Your task to perform on an android device: find snoozed emails in the gmail app Image 0: 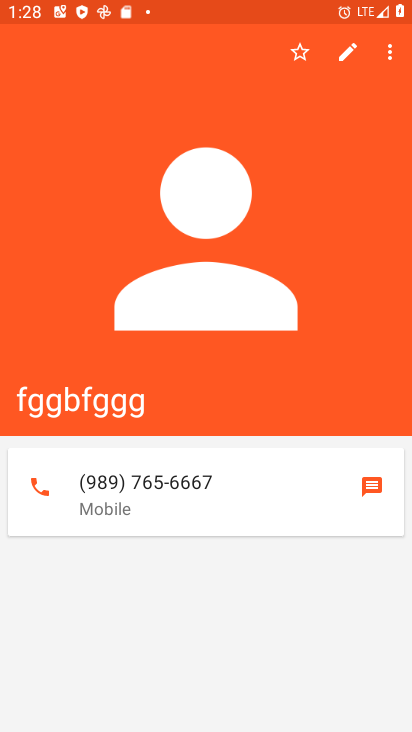
Step 0: press home button
Your task to perform on an android device: find snoozed emails in the gmail app Image 1: 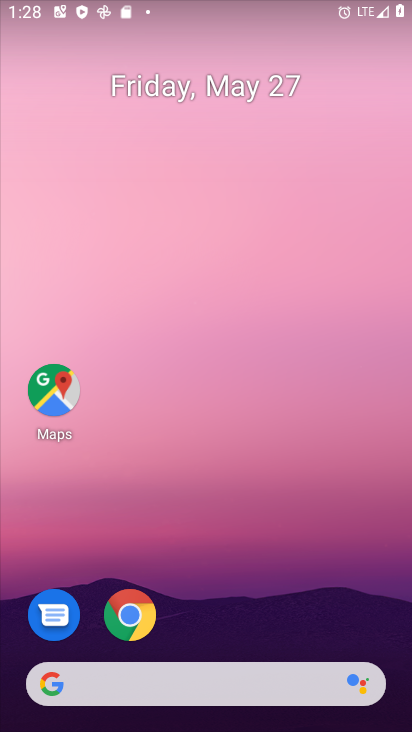
Step 1: drag from (288, 674) to (282, 165)
Your task to perform on an android device: find snoozed emails in the gmail app Image 2: 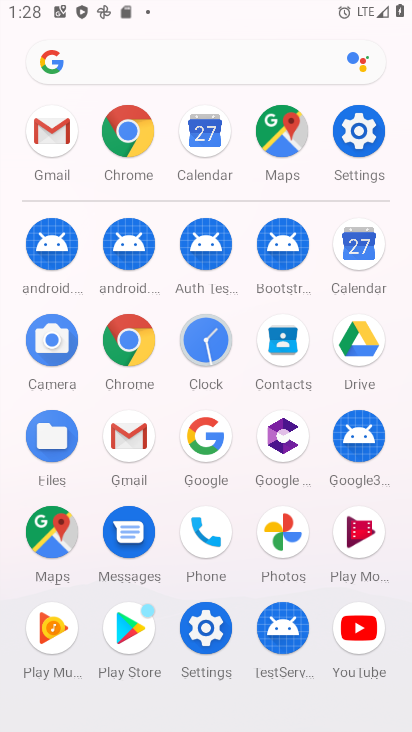
Step 2: click (130, 444)
Your task to perform on an android device: find snoozed emails in the gmail app Image 3: 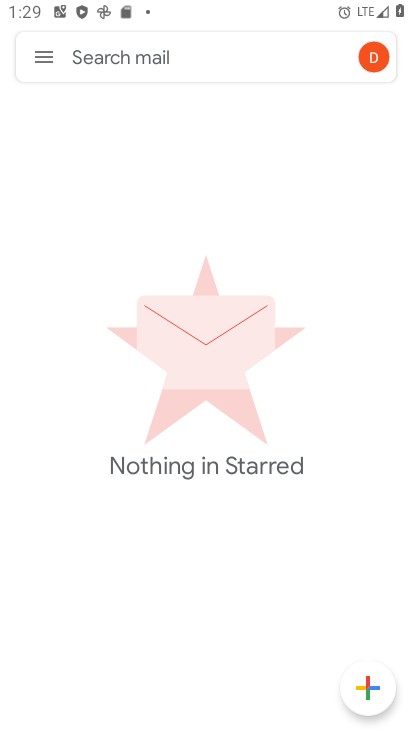
Step 3: click (55, 56)
Your task to perform on an android device: find snoozed emails in the gmail app Image 4: 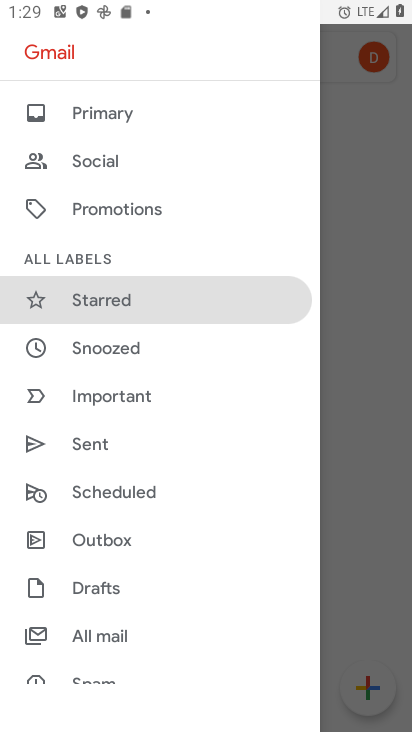
Step 4: click (91, 341)
Your task to perform on an android device: find snoozed emails in the gmail app Image 5: 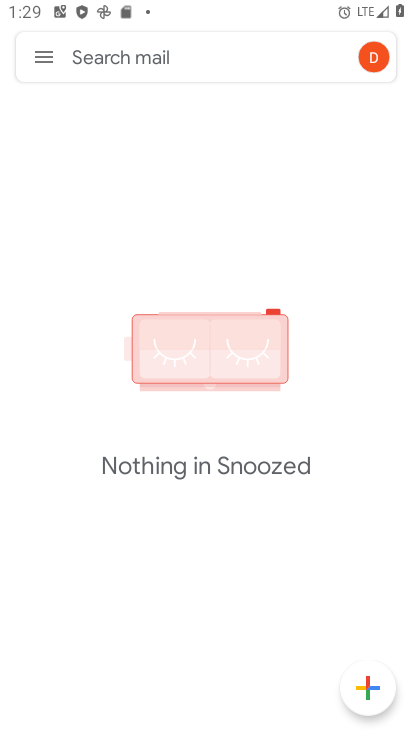
Step 5: task complete